Your task to perform on an android device: Go to Yahoo.com Image 0: 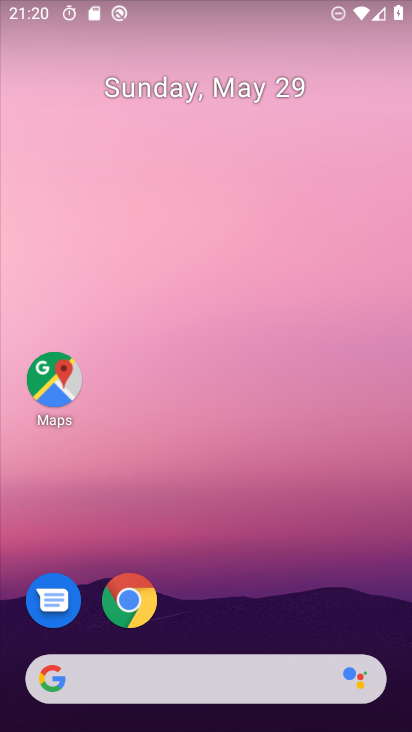
Step 0: click (265, 124)
Your task to perform on an android device: Go to Yahoo.com Image 1: 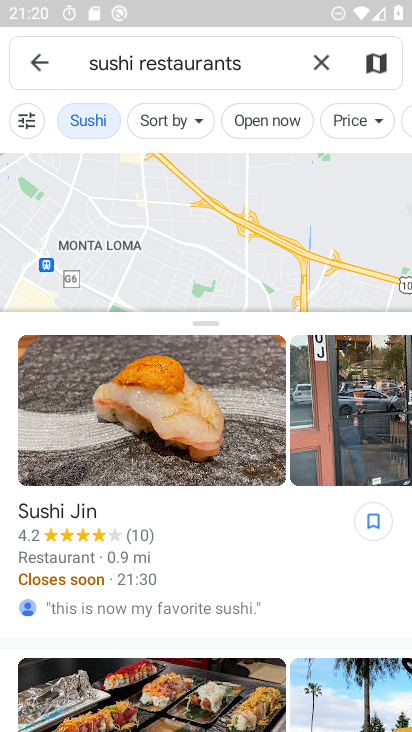
Step 1: press home button
Your task to perform on an android device: Go to Yahoo.com Image 2: 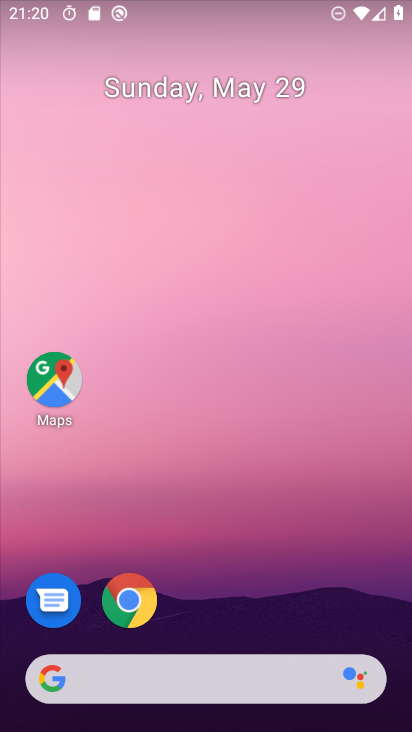
Step 2: drag from (215, 572) to (216, 152)
Your task to perform on an android device: Go to Yahoo.com Image 3: 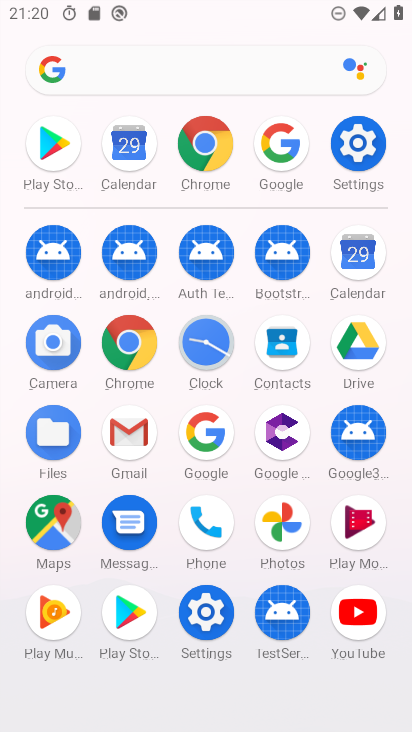
Step 3: click (143, 358)
Your task to perform on an android device: Go to Yahoo.com Image 4: 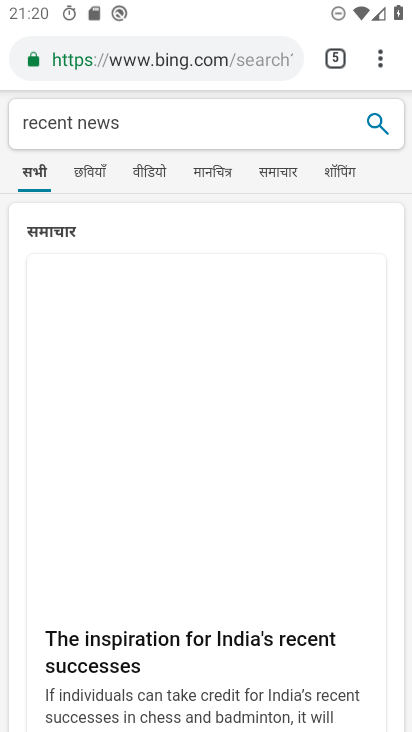
Step 4: click (245, 50)
Your task to perform on an android device: Go to Yahoo.com Image 5: 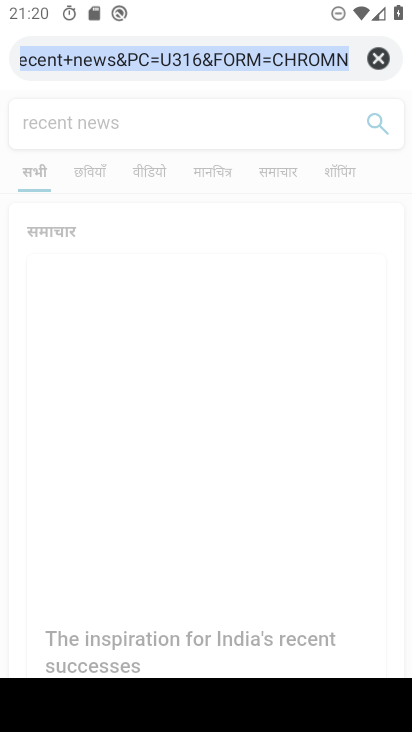
Step 5: click (379, 57)
Your task to perform on an android device: Go to Yahoo.com Image 6: 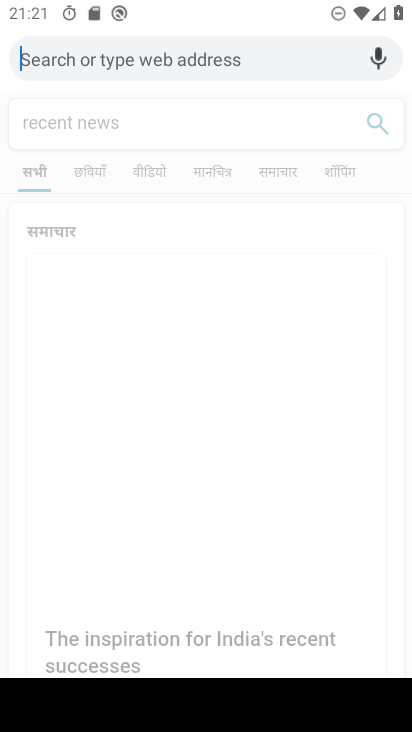
Step 6: type "yahoo.com"
Your task to perform on an android device: Go to Yahoo.com Image 7: 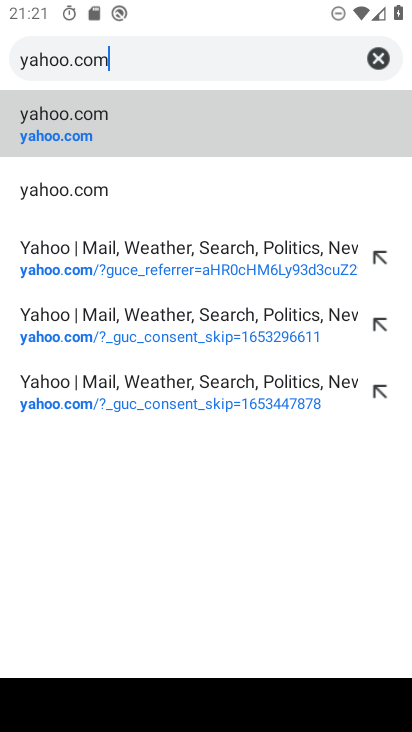
Step 7: click (113, 130)
Your task to perform on an android device: Go to Yahoo.com Image 8: 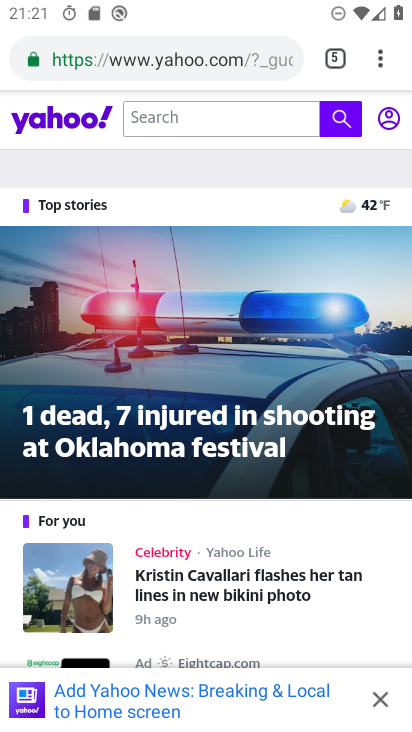
Step 8: task complete